Your task to perform on an android device: change the upload size in google photos Image 0: 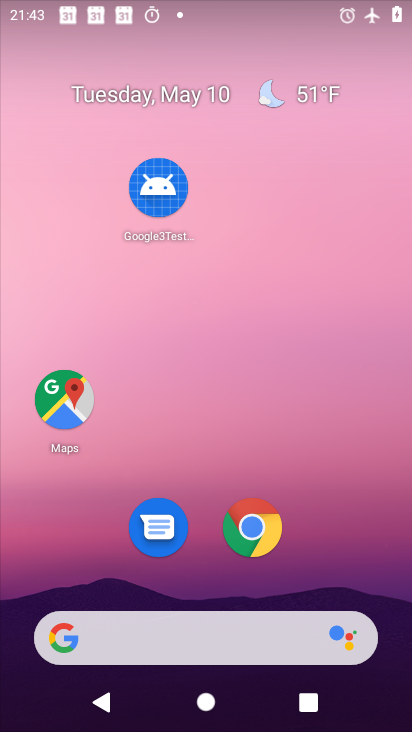
Step 0: drag from (200, 604) to (81, 33)
Your task to perform on an android device: change the upload size in google photos Image 1: 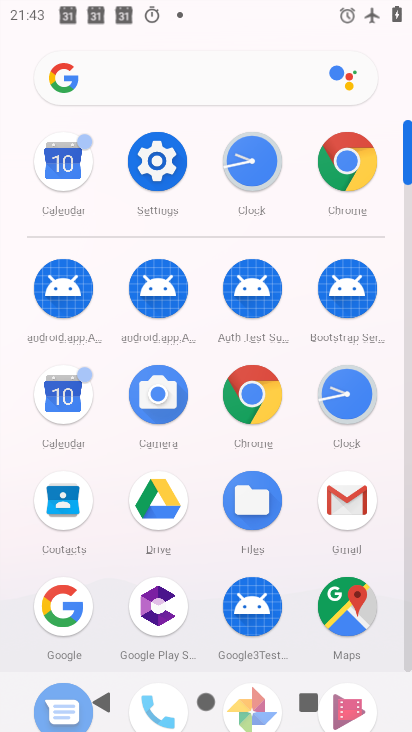
Step 1: drag from (205, 659) to (116, 174)
Your task to perform on an android device: change the upload size in google photos Image 2: 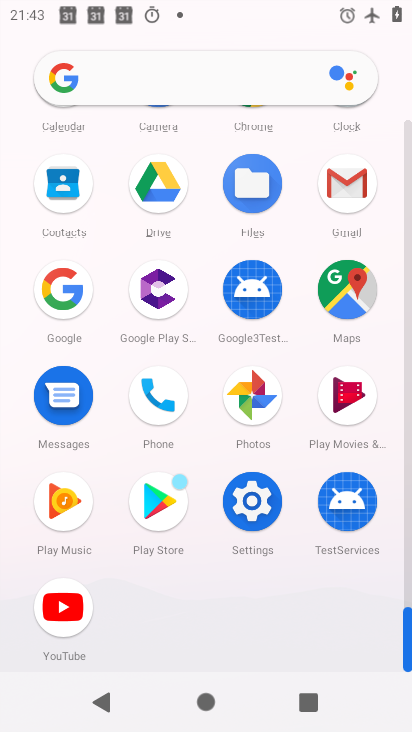
Step 2: click (271, 398)
Your task to perform on an android device: change the upload size in google photos Image 3: 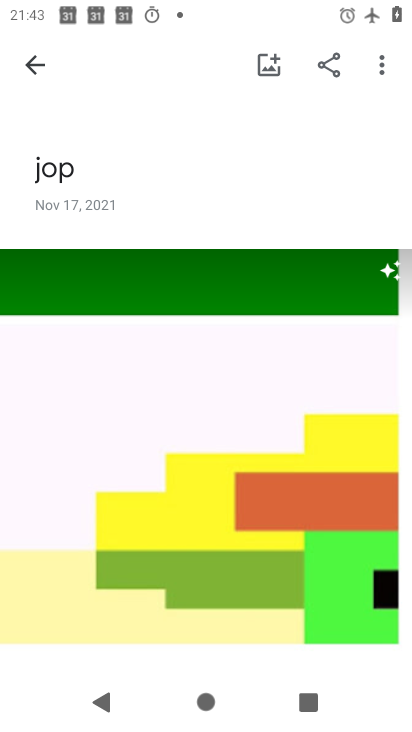
Step 3: click (15, 61)
Your task to perform on an android device: change the upload size in google photos Image 4: 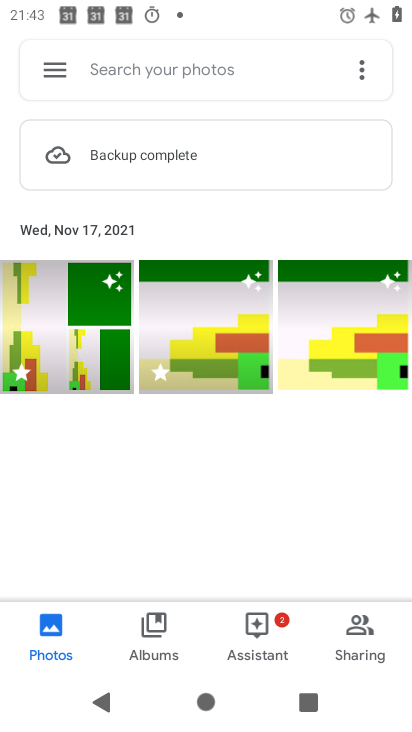
Step 4: click (54, 69)
Your task to perform on an android device: change the upload size in google photos Image 5: 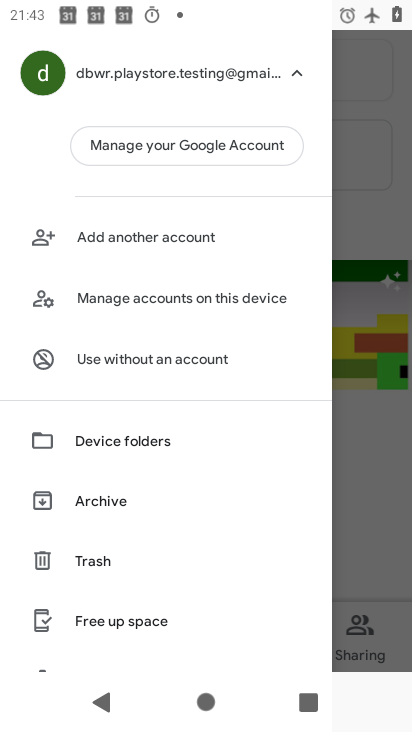
Step 5: drag from (112, 533) to (89, 254)
Your task to perform on an android device: change the upload size in google photos Image 6: 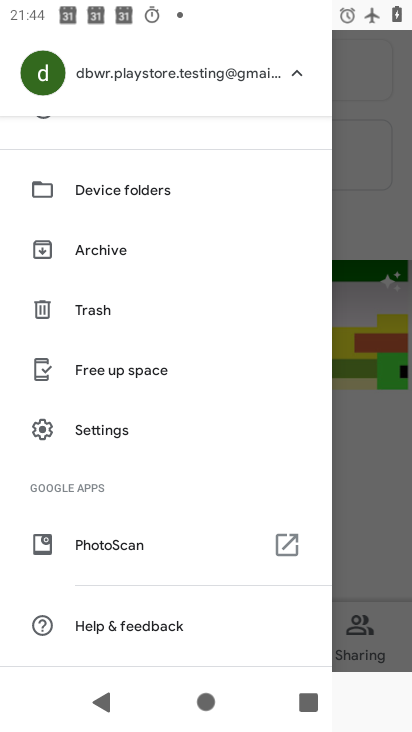
Step 6: click (112, 420)
Your task to perform on an android device: change the upload size in google photos Image 7: 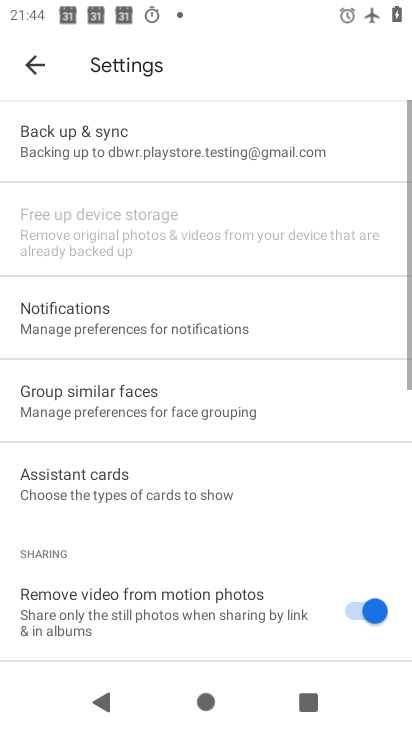
Step 7: click (110, 148)
Your task to perform on an android device: change the upload size in google photos Image 8: 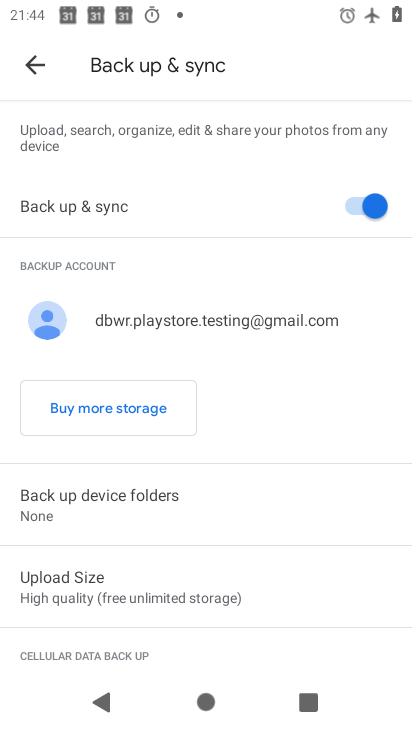
Step 8: click (143, 577)
Your task to perform on an android device: change the upload size in google photos Image 9: 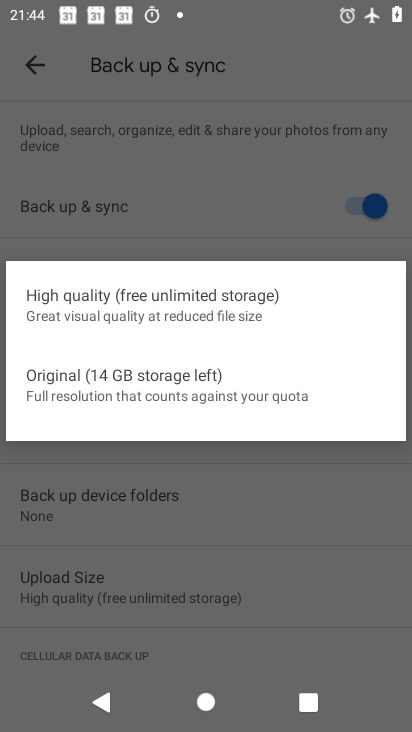
Step 9: click (96, 393)
Your task to perform on an android device: change the upload size in google photos Image 10: 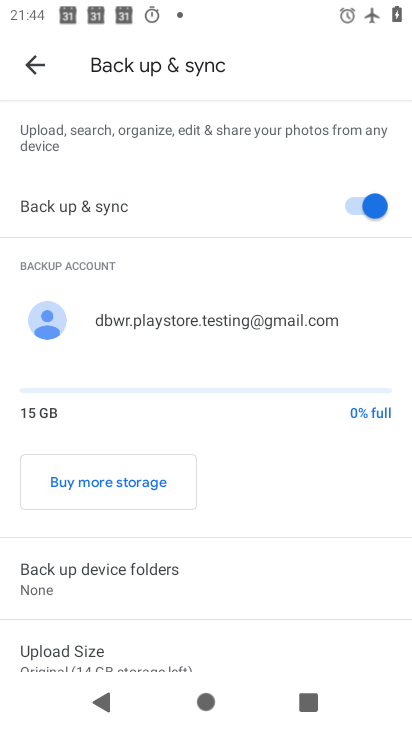
Step 10: task complete